Your task to perform on an android device: open app "Cash App" (install if not already installed) and enter user name: "submodules@gmail.com" and password: "heavenly" Image 0: 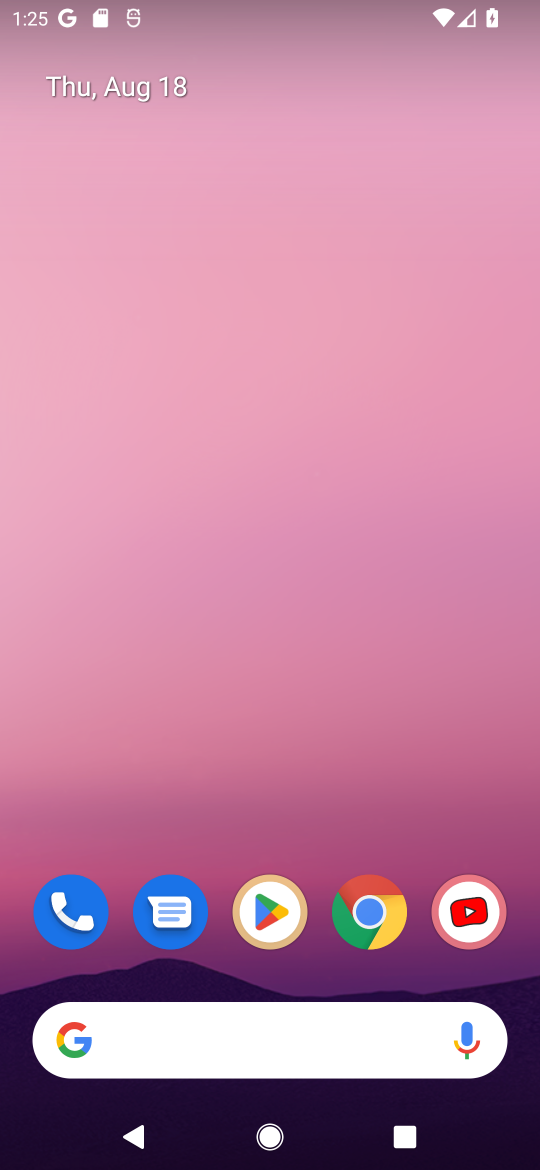
Step 0: click (270, 901)
Your task to perform on an android device: open app "Cash App" (install if not already installed) and enter user name: "submodules@gmail.com" and password: "heavenly" Image 1: 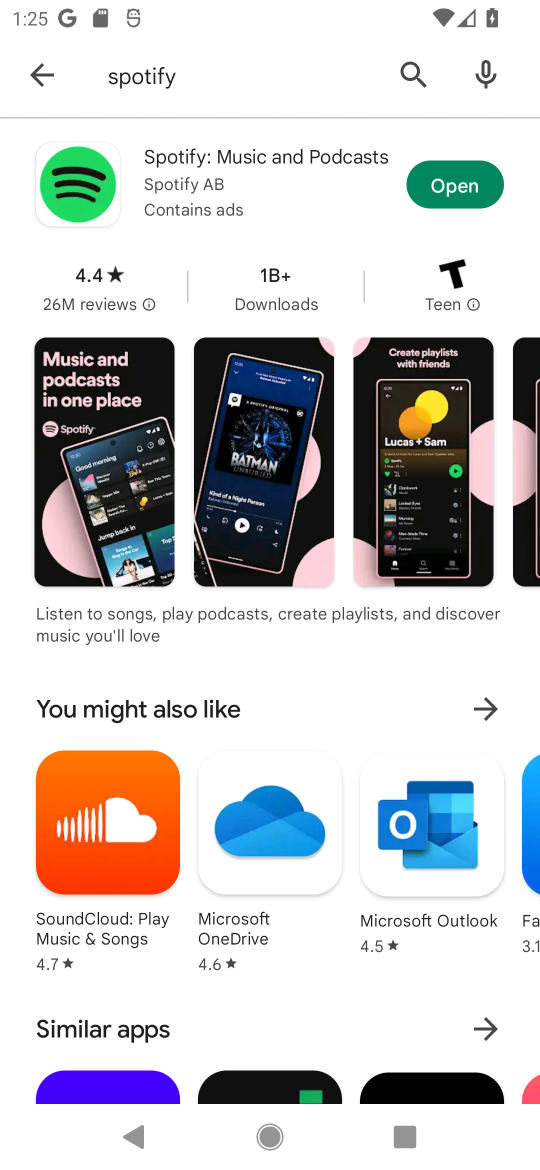
Step 1: click (423, 51)
Your task to perform on an android device: open app "Cash App" (install if not already installed) and enter user name: "submodules@gmail.com" and password: "heavenly" Image 2: 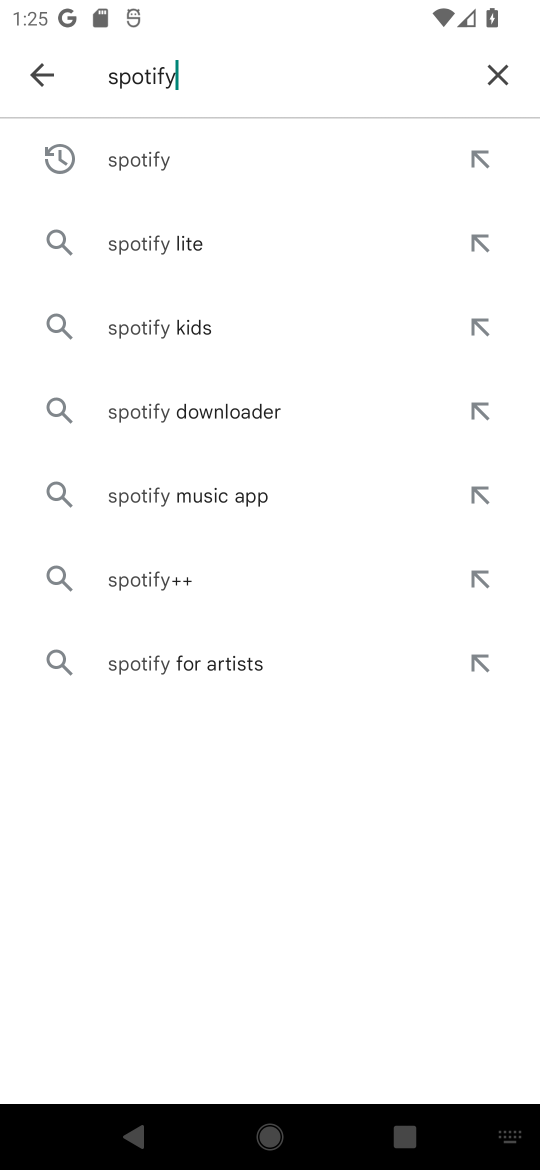
Step 2: click (494, 70)
Your task to perform on an android device: open app "Cash App" (install if not already installed) and enter user name: "submodules@gmail.com" and password: "heavenly" Image 3: 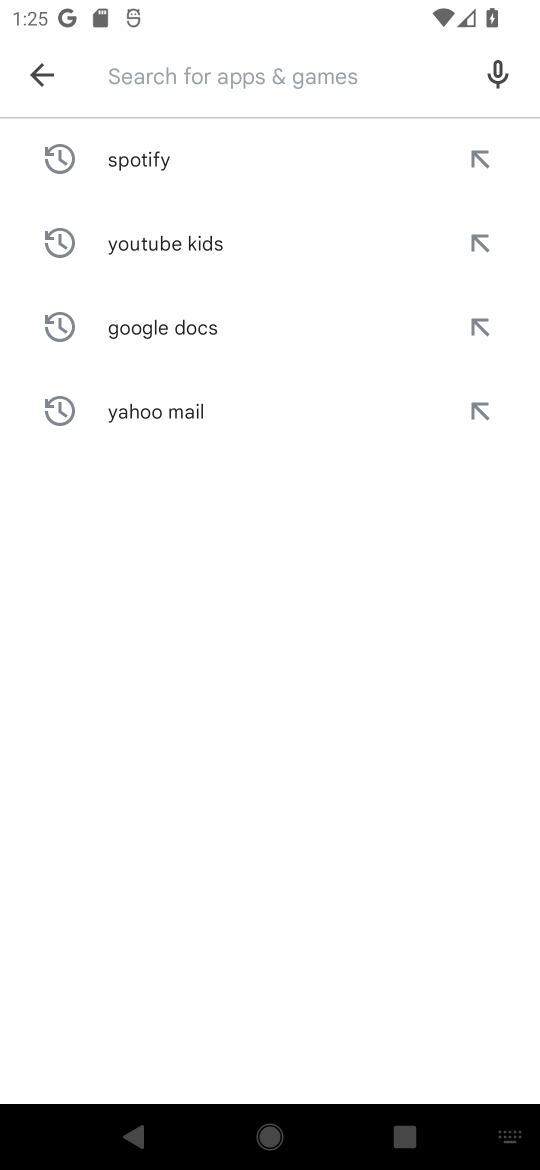
Step 3: click (197, 67)
Your task to perform on an android device: open app "Cash App" (install if not already installed) and enter user name: "submodules@gmail.com" and password: "heavenly" Image 4: 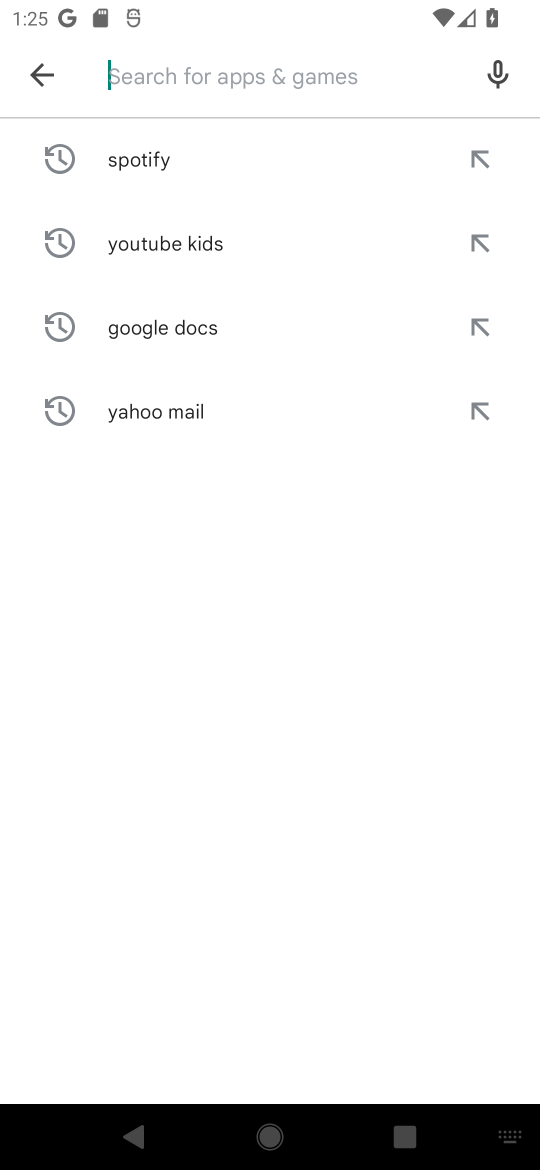
Step 4: type "cash app"
Your task to perform on an android device: open app "Cash App" (install if not already installed) and enter user name: "submodules@gmail.com" and password: "heavenly" Image 5: 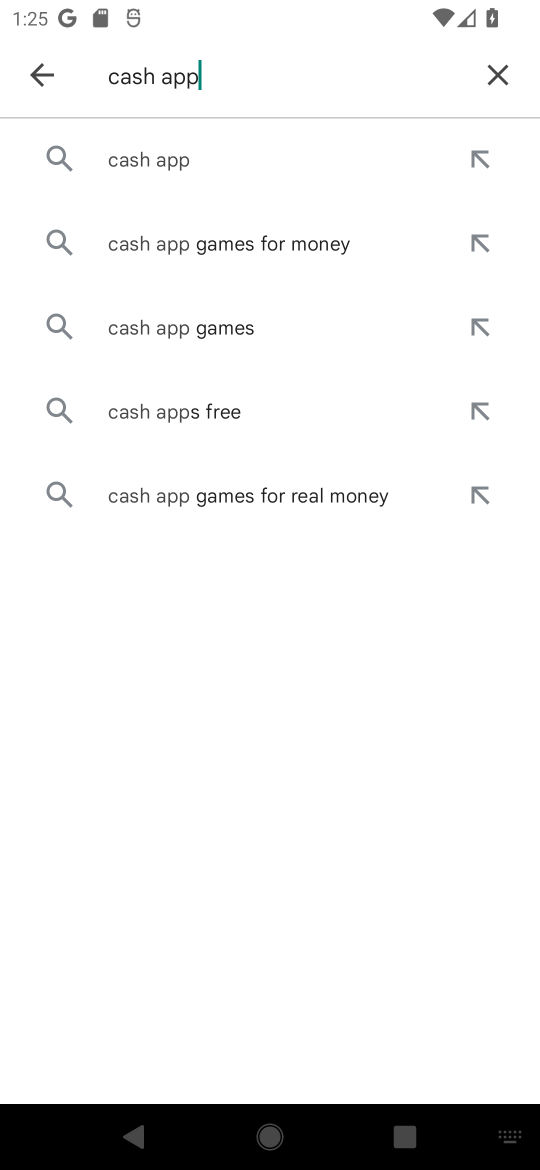
Step 5: click (119, 151)
Your task to perform on an android device: open app "Cash App" (install if not already installed) and enter user name: "submodules@gmail.com" and password: "heavenly" Image 6: 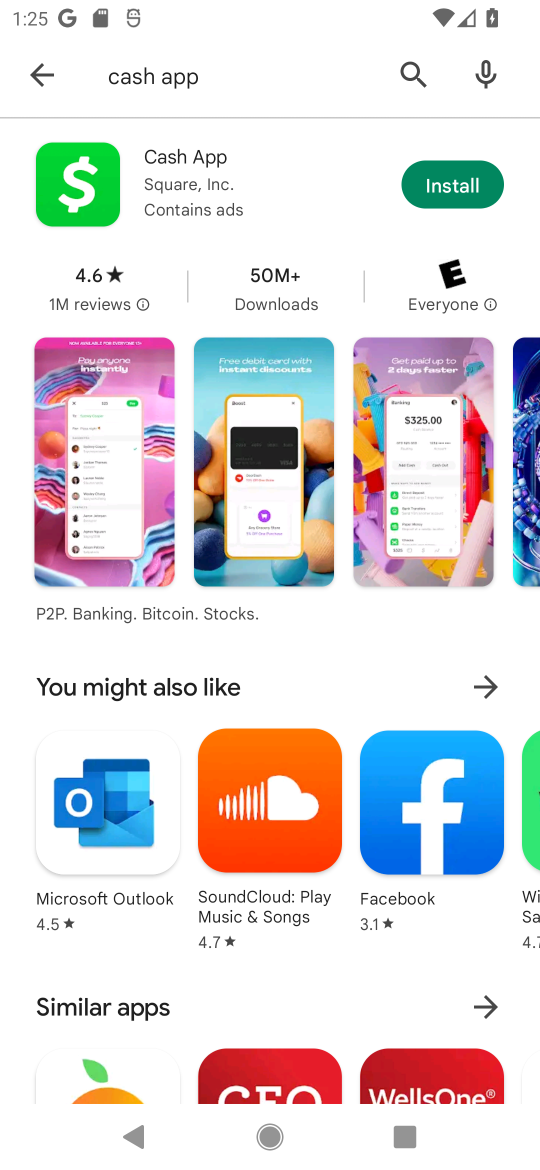
Step 6: click (449, 186)
Your task to perform on an android device: open app "Cash App" (install if not already installed) and enter user name: "submodules@gmail.com" and password: "heavenly" Image 7: 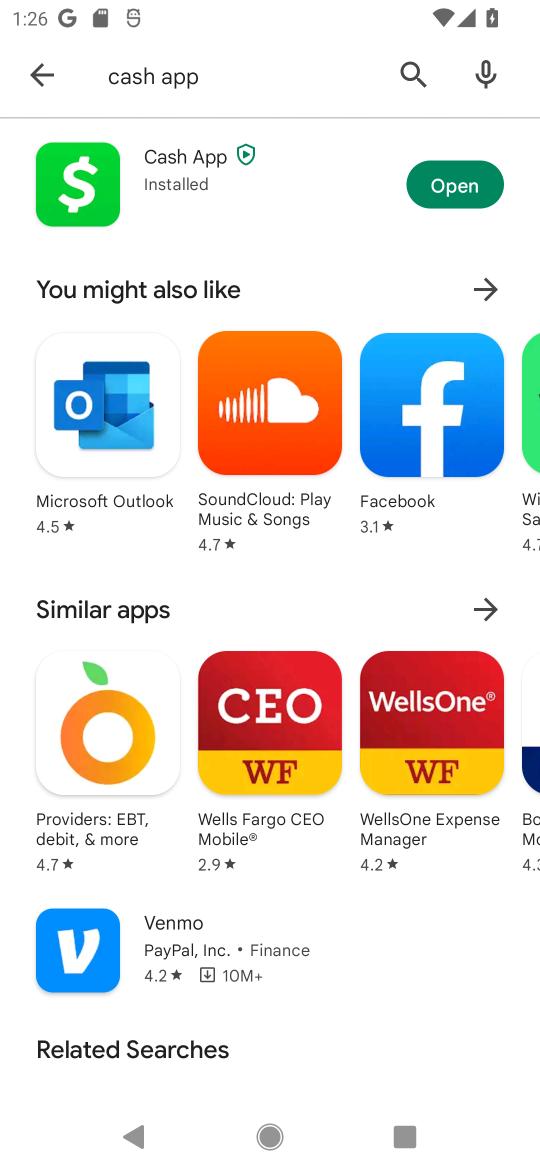
Step 7: click (460, 178)
Your task to perform on an android device: open app "Cash App" (install if not already installed) and enter user name: "submodules@gmail.com" and password: "heavenly" Image 8: 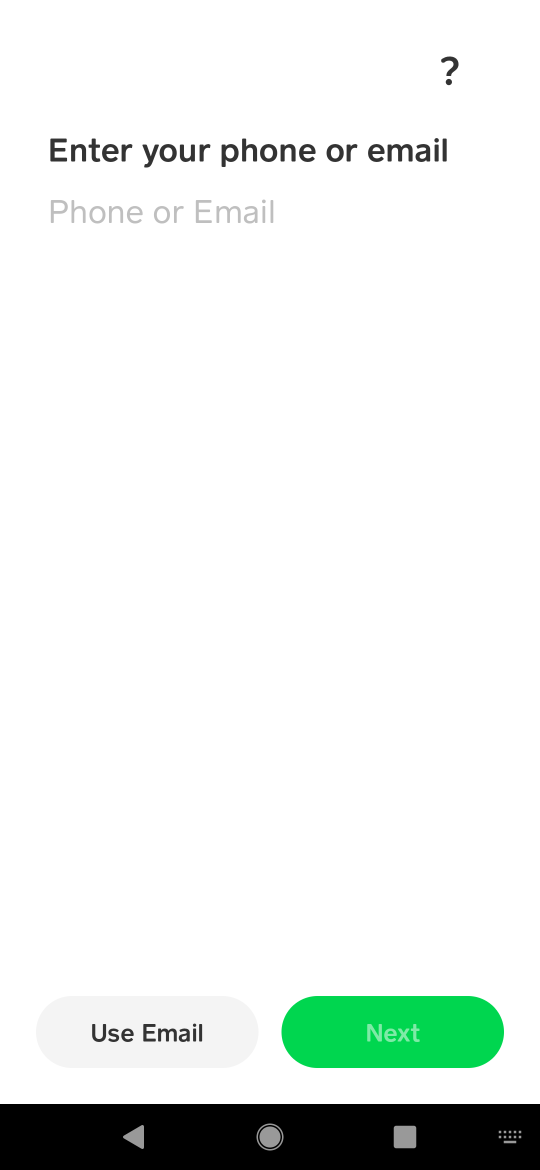
Step 8: click (130, 207)
Your task to perform on an android device: open app "Cash App" (install if not already installed) and enter user name: "submodules@gmail.com" and password: "heavenly" Image 9: 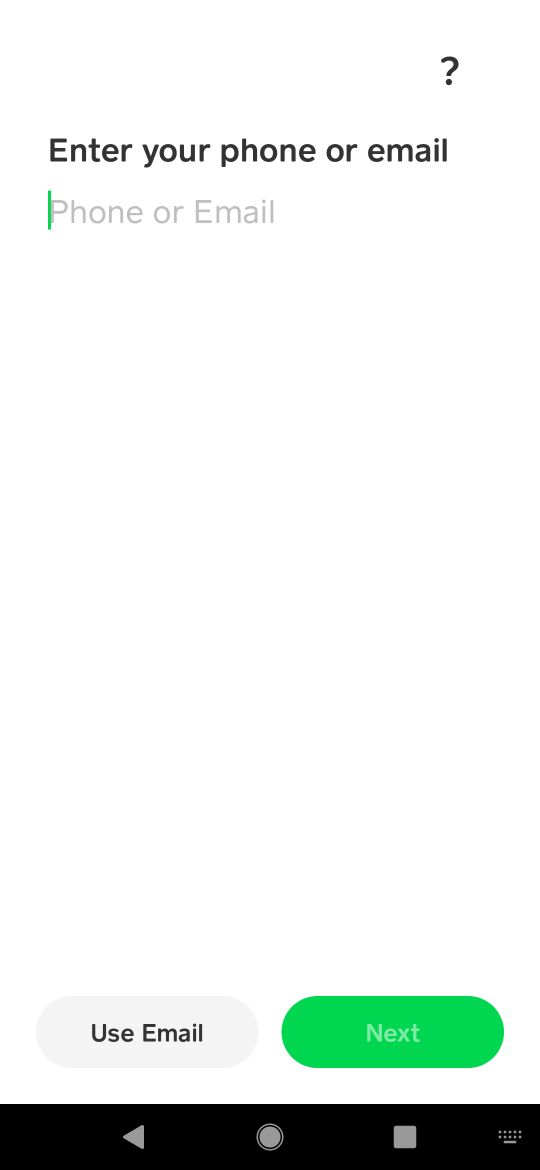
Step 9: type "submodules@gmail.com"
Your task to perform on an android device: open app "Cash App" (install if not already installed) and enter user name: "submodules@gmail.com" and password: "heavenly" Image 10: 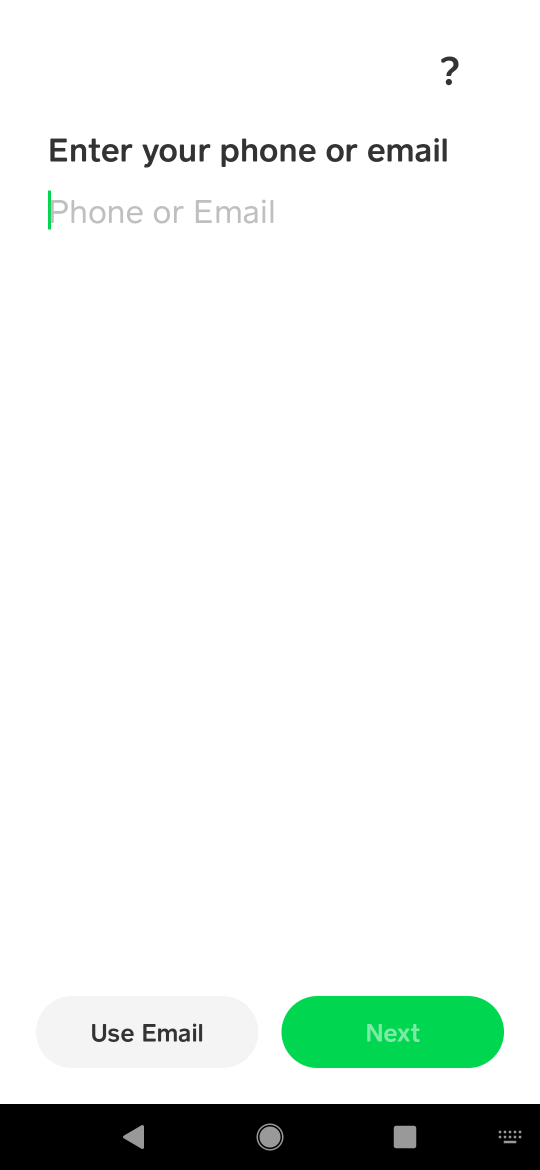
Step 10: click (265, 646)
Your task to perform on an android device: open app "Cash App" (install if not already installed) and enter user name: "submodules@gmail.com" and password: "heavenly" Image 11: 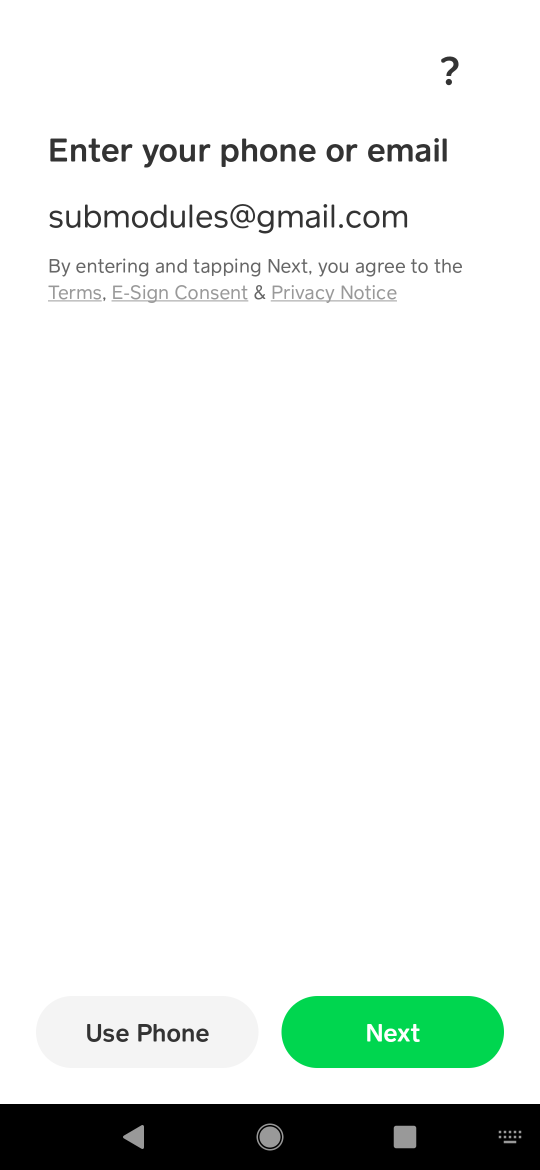
Step 11: click (408, 1055)
Your task to perform on an android device: open app "Cash App" (install if not already installed) and enter user name: "submodules@gmail.com" and password: "heavenly" Image 12: 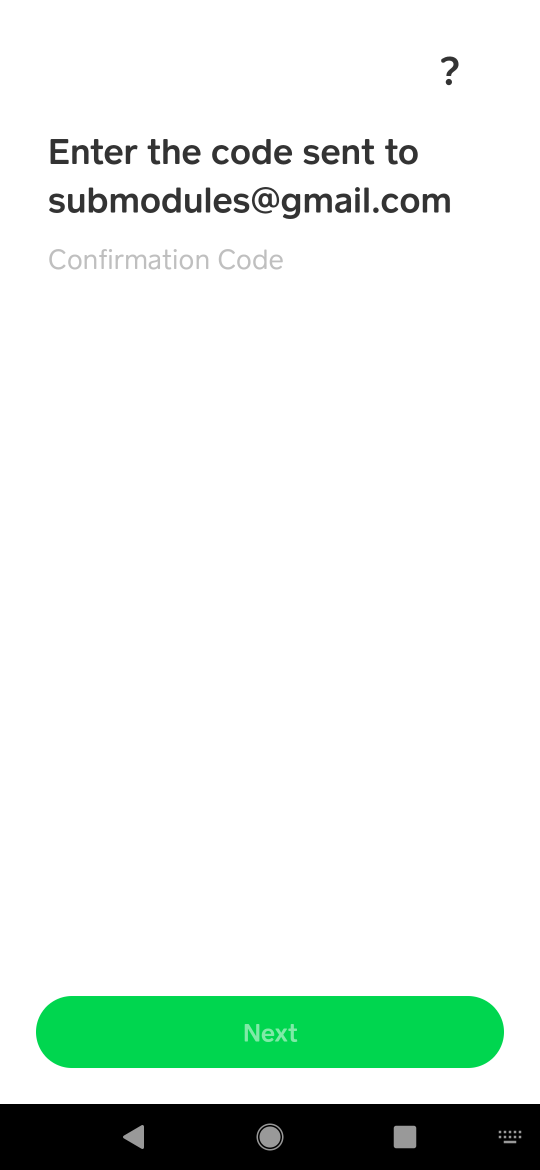
Step 12: task complete